Your task to perform on an android device: Go to battery settings Image 0: 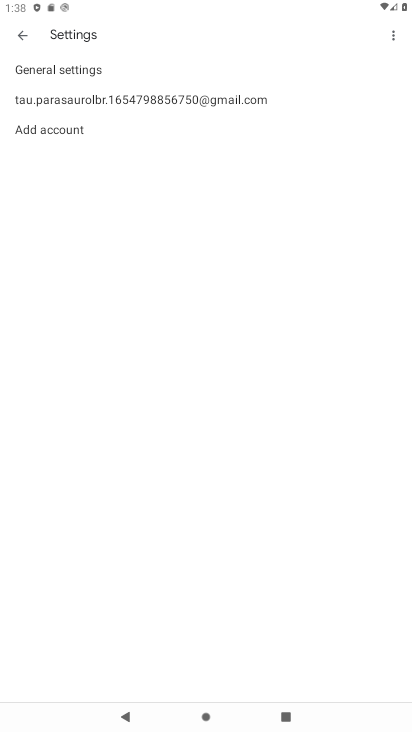
Step 0: press home button
Your task to perform on an android device: Go to battery settings Image 1: 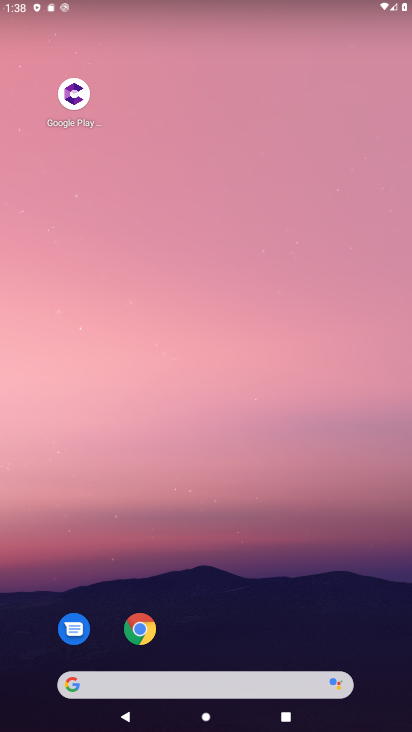
Step 1: drag from (349, 554) to (303, 93)
Your task to perform on an android device: Go to battery settings Image 2: 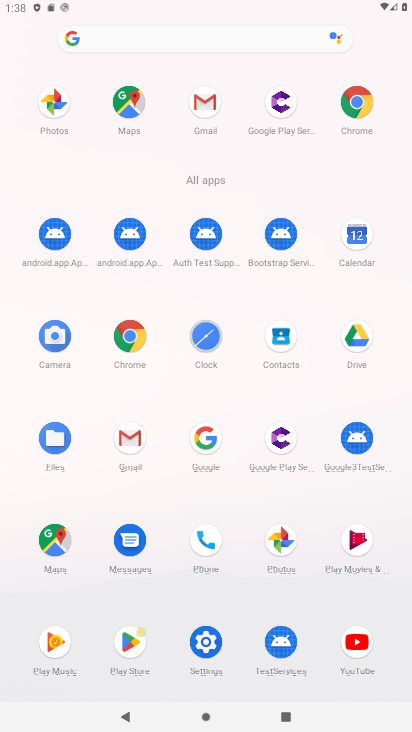
Step 2: click (207, 642)
Your task to perform on an android device: Go to battery settings Image 3: 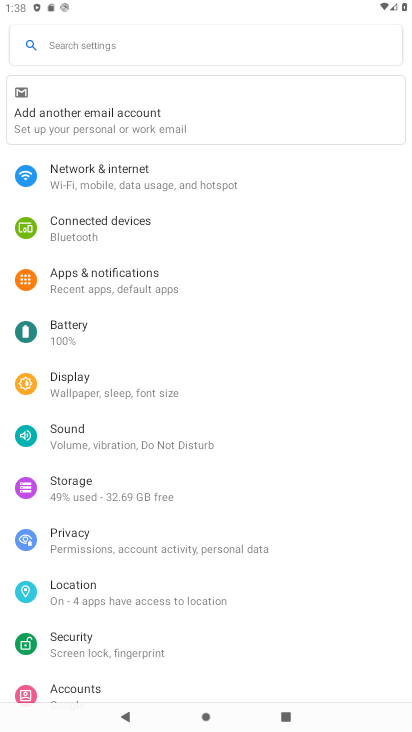
Step 3: click (135, 328)
Your task to perform on an android device: Go to battery settings Image 4: 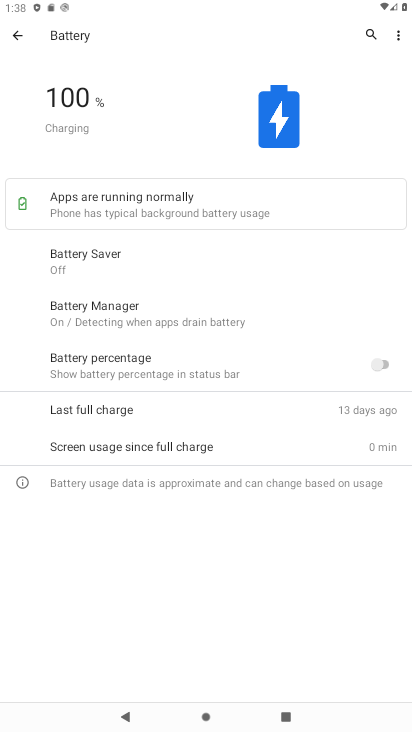
Step 4: task complete